Your task to perform on an android device: Go to Android settings Image 0: 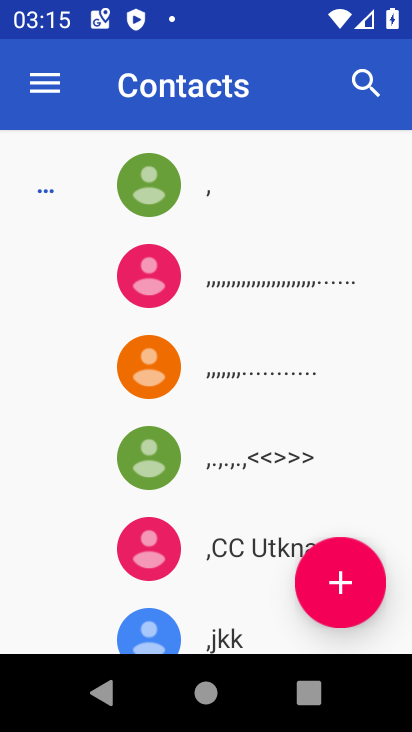
Step 0: press home button
Your task to perform on an android device: Go to Android settings Image 1: 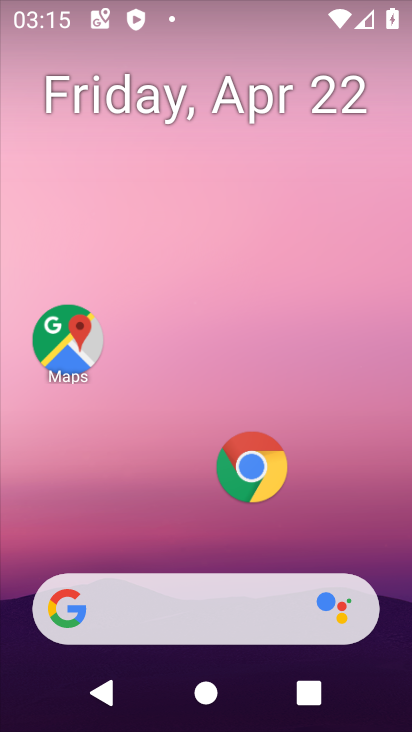
Step 1: drag from (195, 516) to (221, 205)
Your task to perform on an android device: Go to Android settings Image 2: 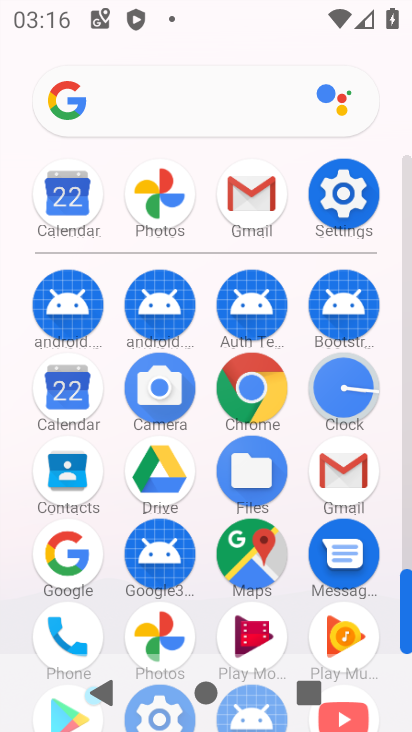
Step 2: click (344, 193)
Your task to perform on an android device: Go to Android settings Image 3: 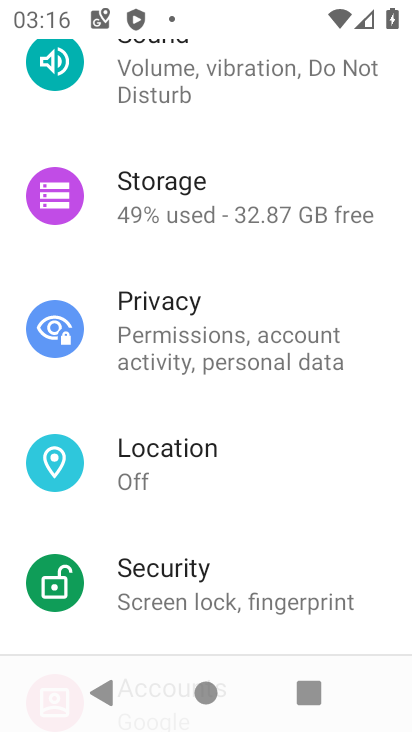
Step 3: task complete